Your task to perform on an android device: Clear all items from cart on target. Search for "asus zenbook" on target, select the first entry, and add it to the cart. Image 0: 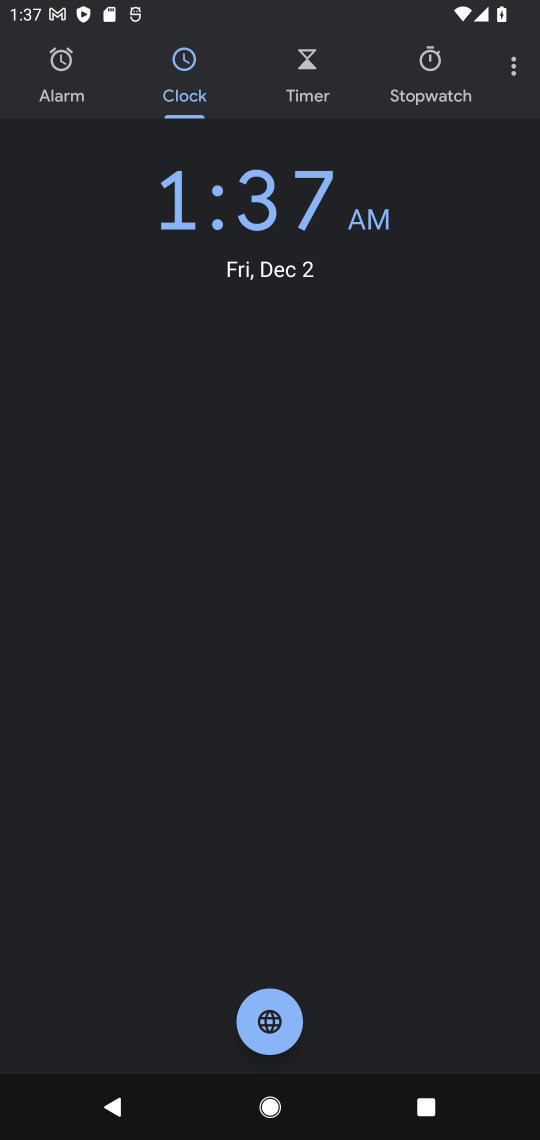
Step 0: press home button
Your task to perform on an android device: Clear all items from cart on target. Search for "asus zenbook" on target, select the first entry, and add it to the cart. Image 1: 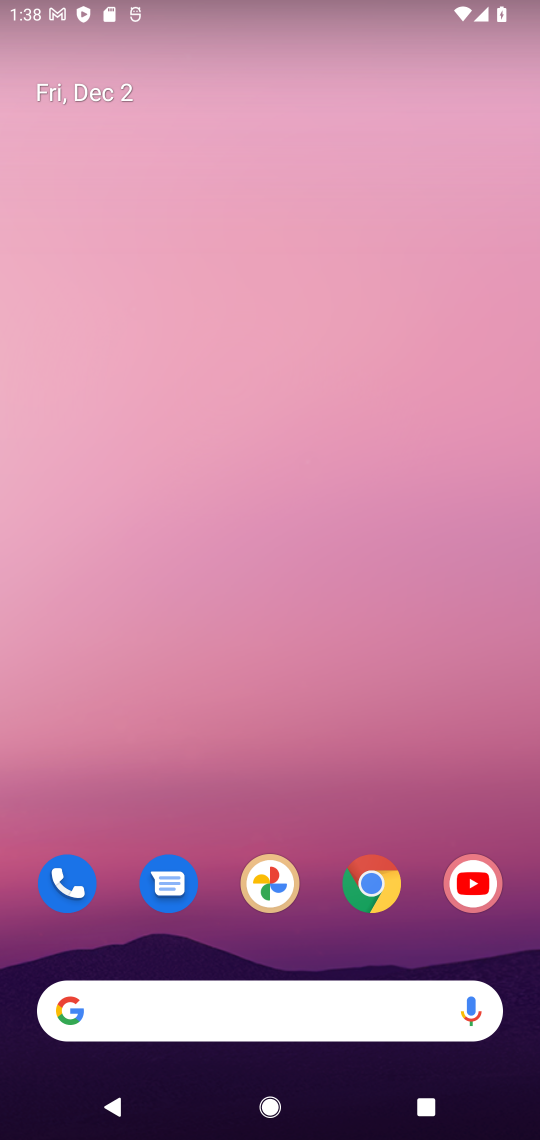
Step 1: click (74, 1013)
Your task to perform on an android device: Clear all items from cart on target. Search for "asus zenbook" on target, select the first entry, and add it to the cart. Image 2: 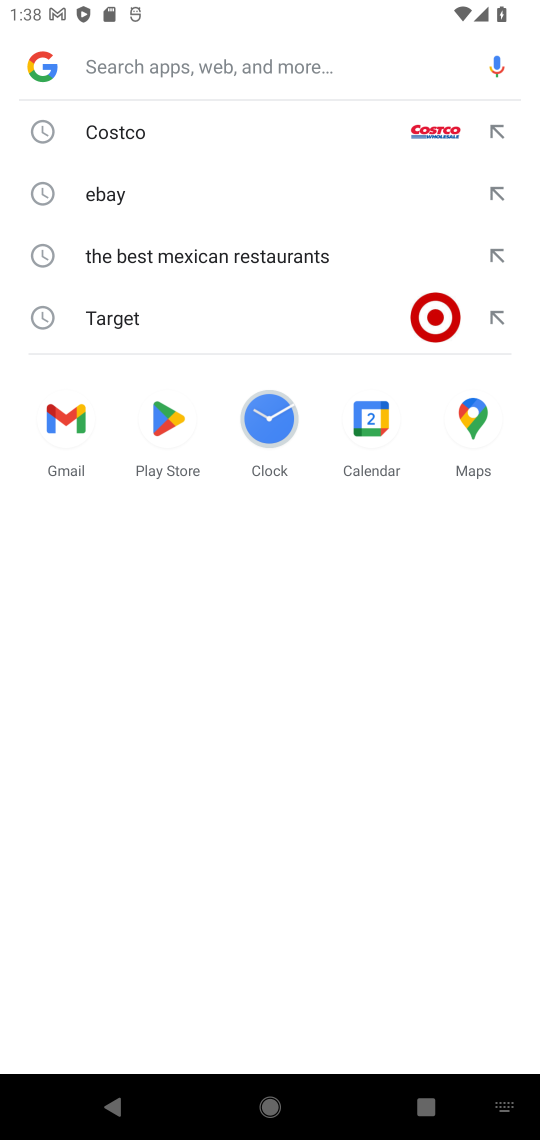
Step 2: click (121, 317)
Your task to perform on an android device: Clear all items from cart on target. Search for "asus zenbook" on target, select the first entry, and add it to the cart. Image 3: 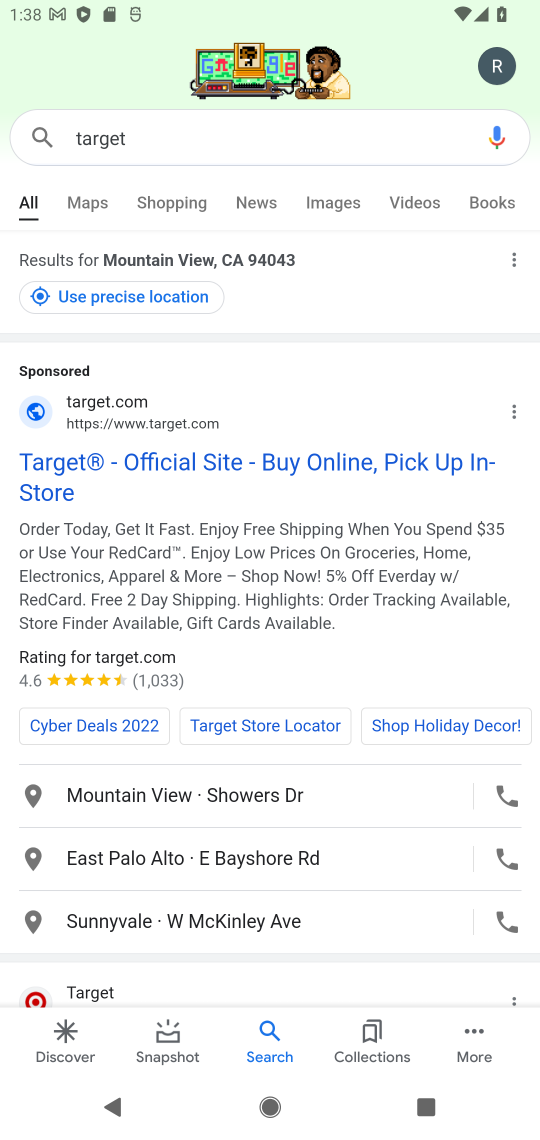
Step 3: click (129, 465)
Your task to perform on an android device: Clear all items from cart on target. Search for "asus zenbook" on target, select the first entry, and add it to the cart. Image 4: 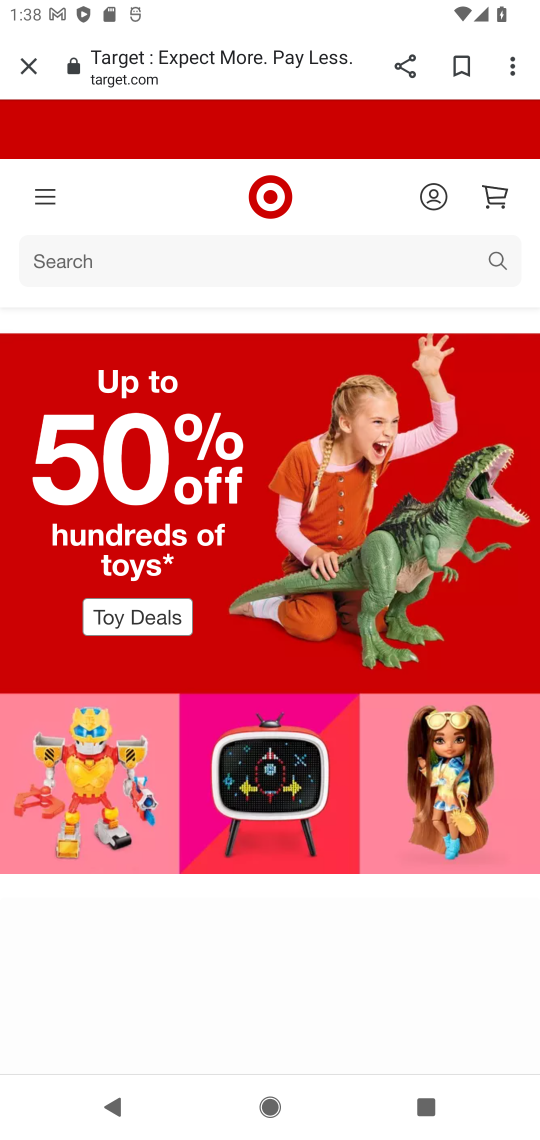
Step 4: click (456, 253)
Your task to perform on an android device: Clear all items from cart on target. Search for "asus zenbook" on target, select the first entry, and add it to the cart. Image 5: 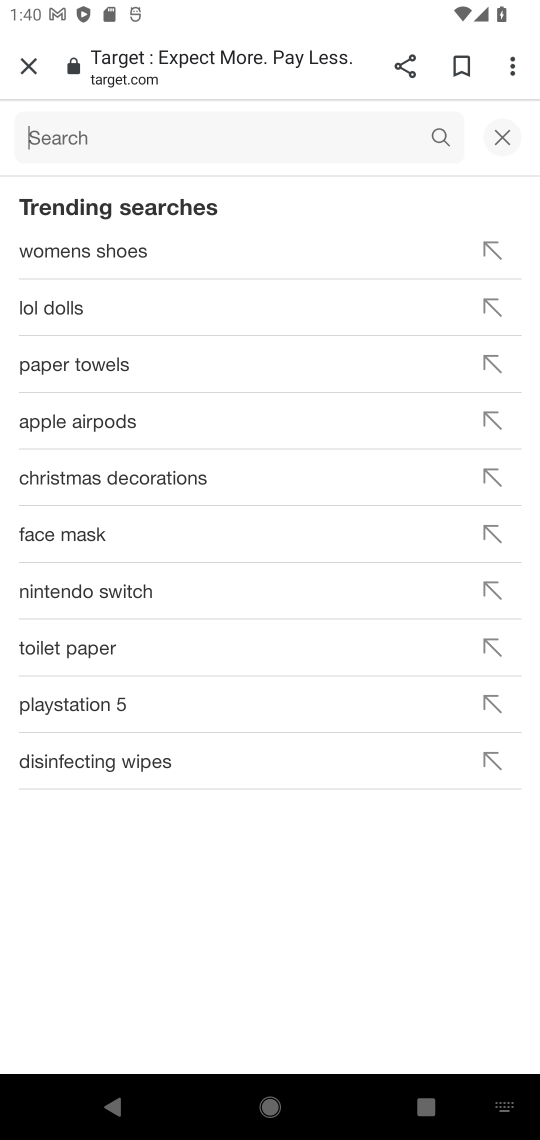
Step 5: task complete